Your task to perform on an android device: Is it going to rain today? Image 0: 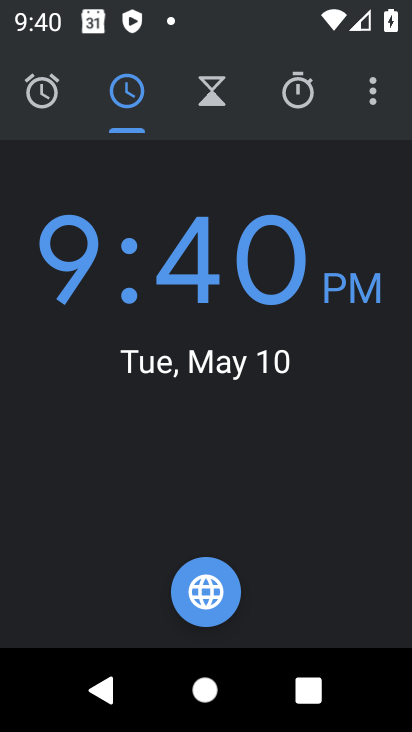
Step 0: press home button
Your task to perform on an android device: Is it going to rain today? Image 1: 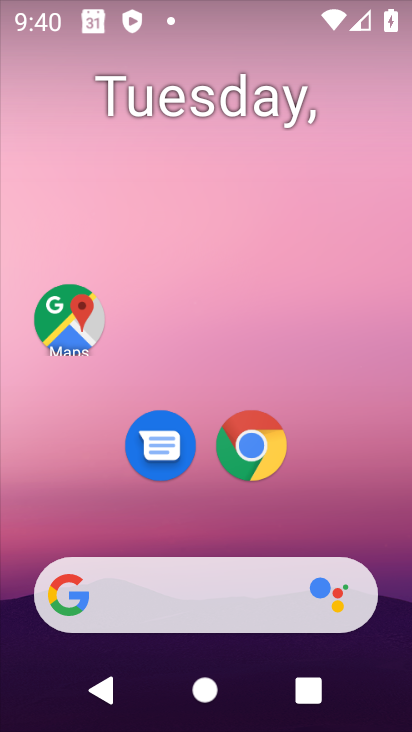
Step 1: drag from (32, 229) to (403, 246)
Your task to perform on an android device: Is it going to rain today? Image 2: 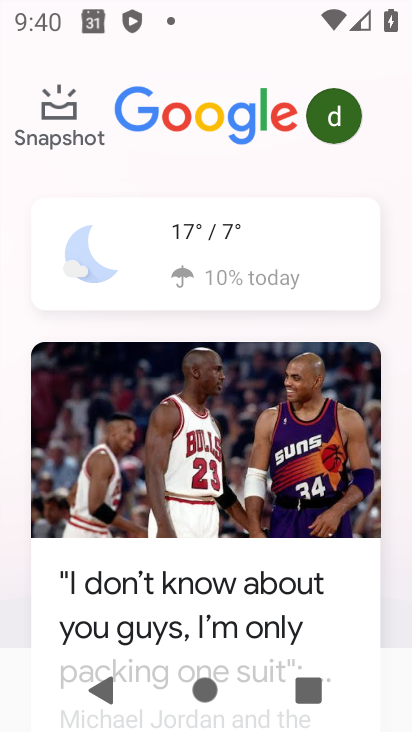
Step 2: click (217, 232)
Your task to perform on an android device: Is it going to rain today? Image 3: 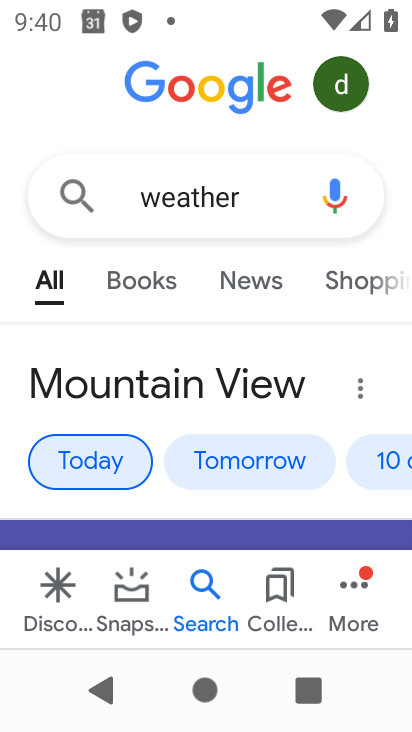
Step 3: task complete